Your task to perform on an android device: uninstall "Facebook Messenger" Image 0: 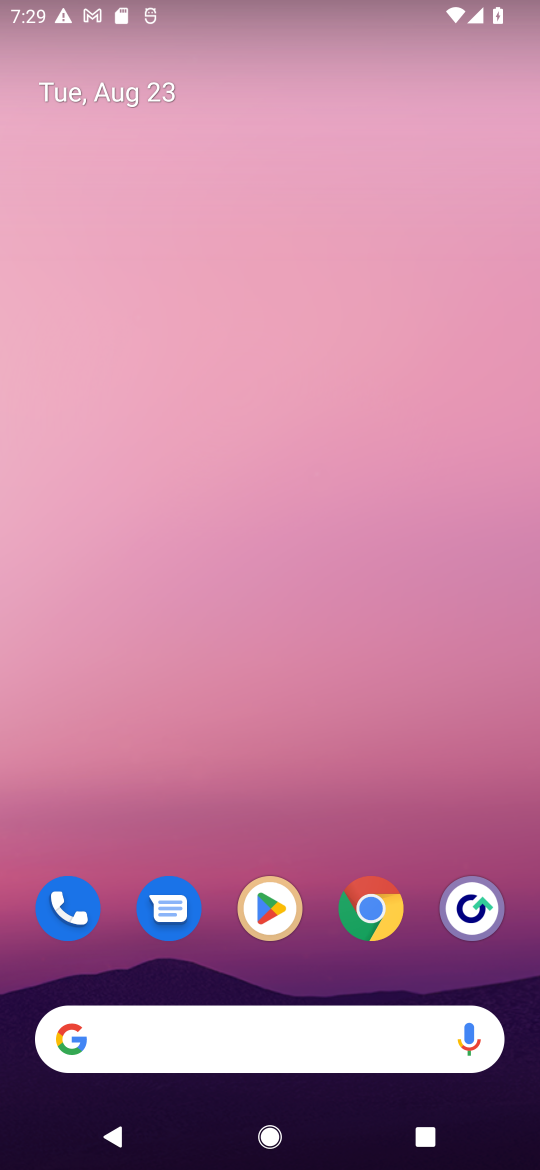
Step 0: drag from (329, 1025) to (452, 198)
Your task to perform on an android device: uninstall "Facebook Messenger" Image 1: 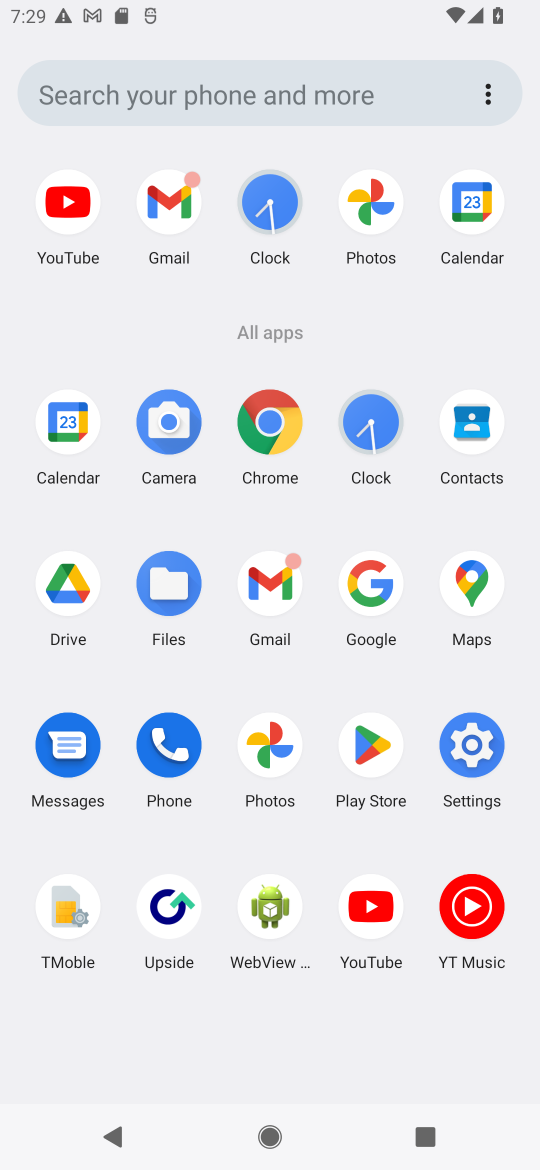
Step 1: click (377, 754)
Your task to perform on an android device: uninstall "Facebook Messenger" Image 2: 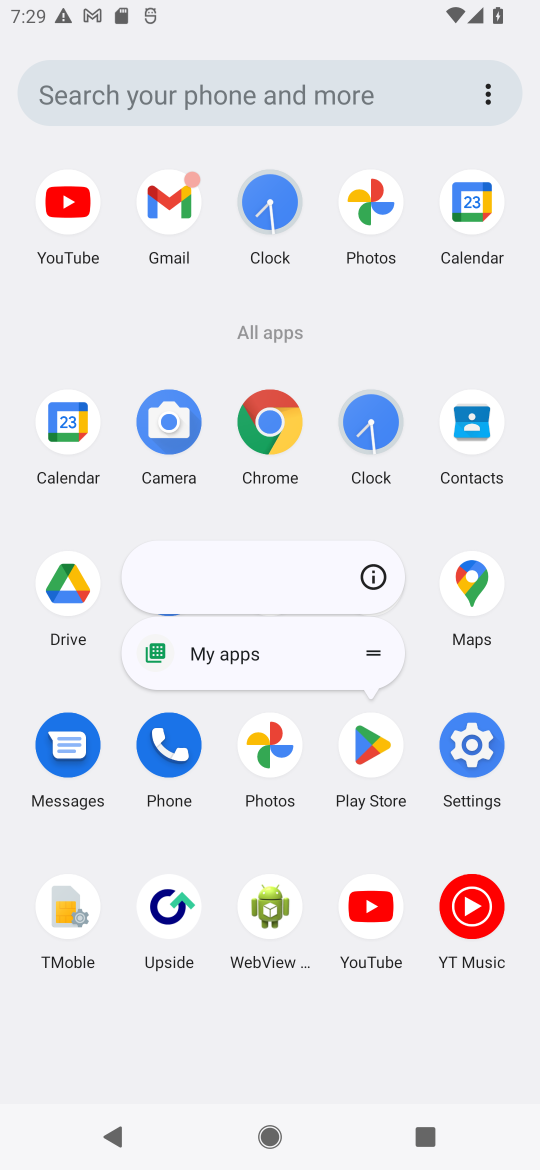
Step 2: click (361, 747)
Your task to perform on an android device: uninstall "Facebook Messenger" Image 3: 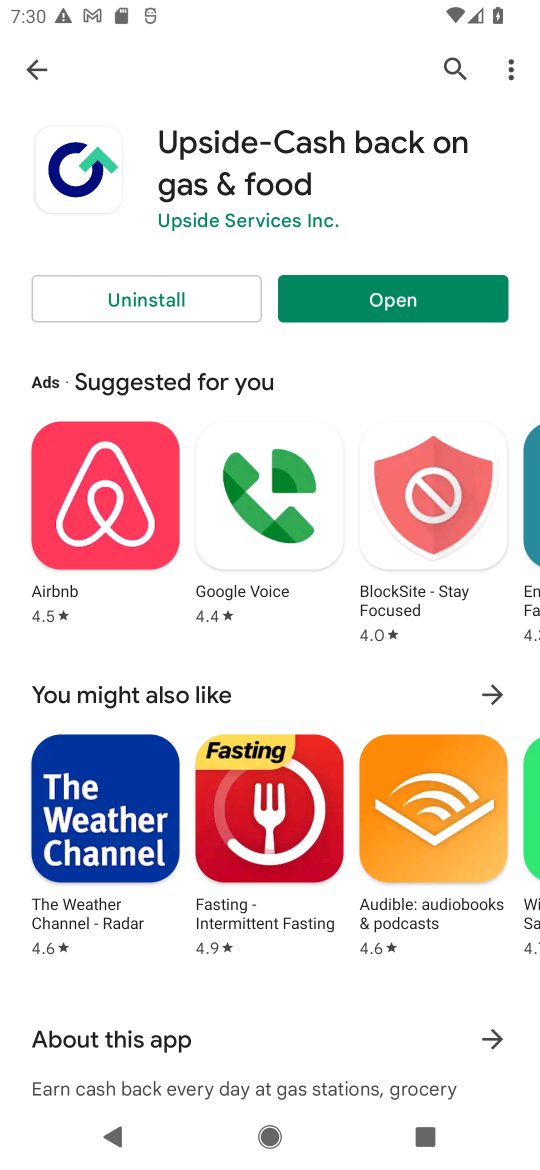
Step 3: click (450, 67)
Your task to perform on an android device: uninstall "Facebook Messenger" Image 4: 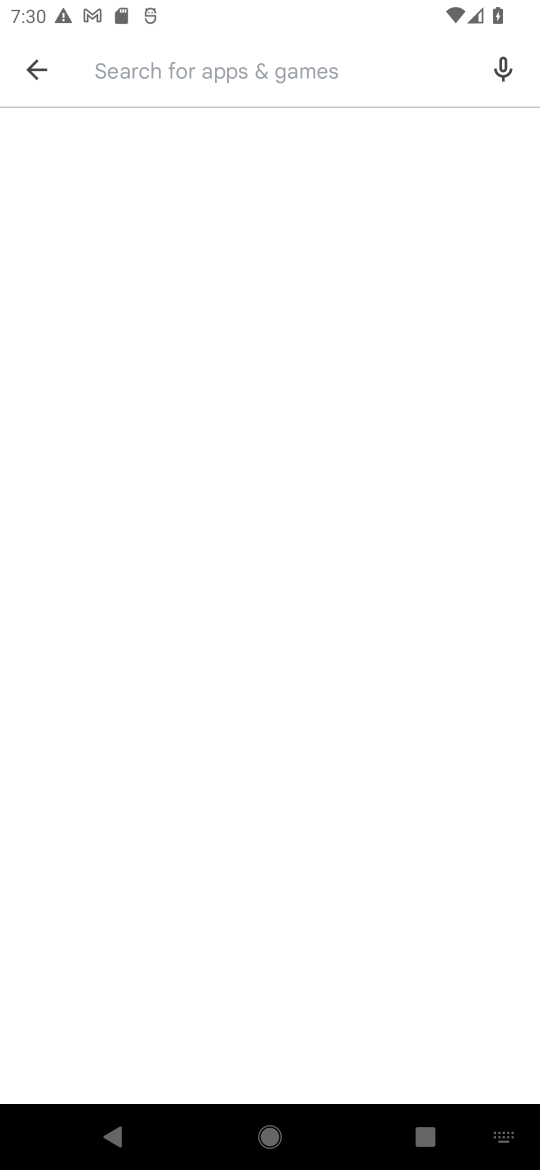
Step 4: type "Facebook Messenger"
Your task to perform on an android device: uninstall "Facebook Messenger" Image 5: 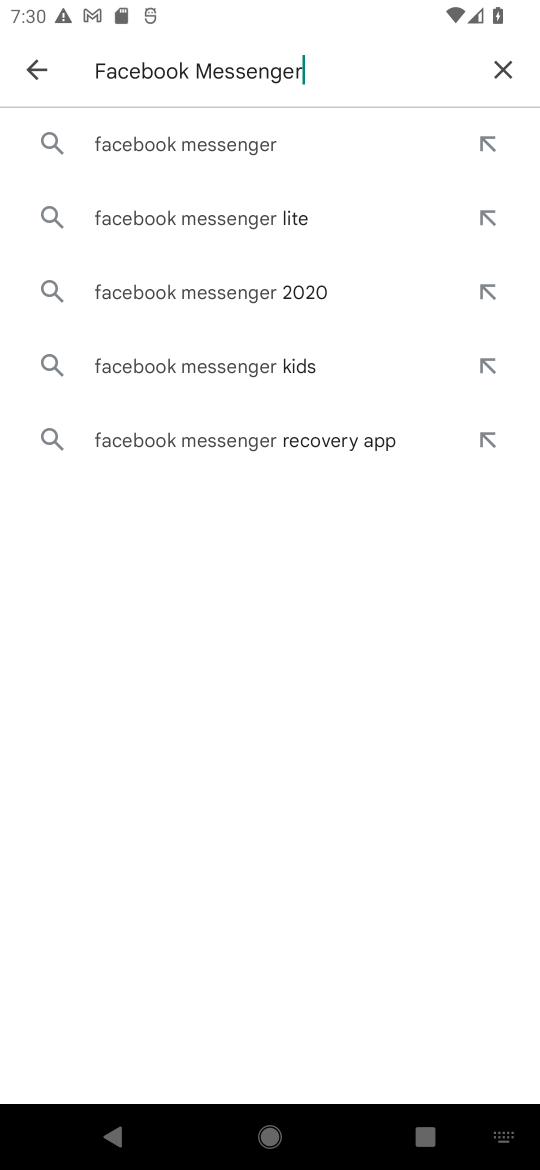
Step 5: click (242, 143)
Your task to perform on an android device: uninstall "Facebook Messenger" Image 6: 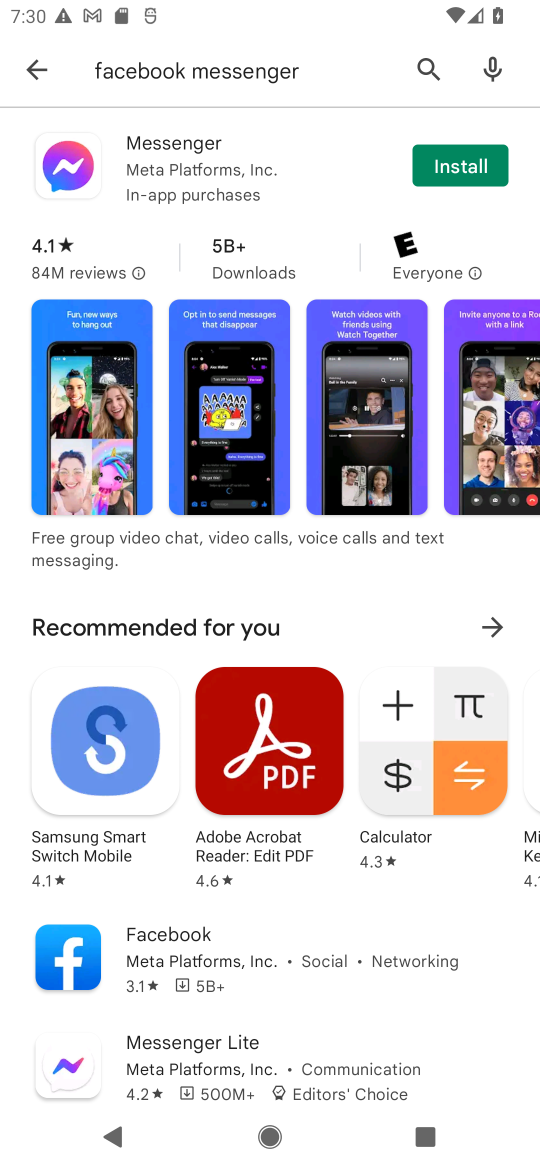
Step 6: click (471, 157)
Your task to perform on an android device: uninstall "Facebook Messenger" Image 7: 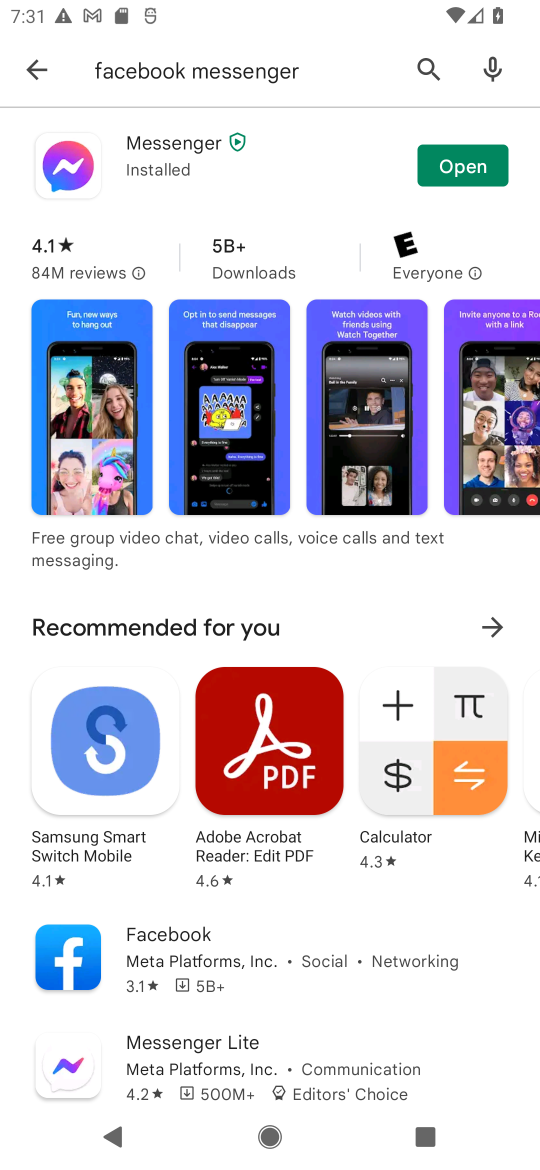
Step 7: click (230, 171)
Your task to perform on an android device: uninstall "Facebook Messenger" Image 8: 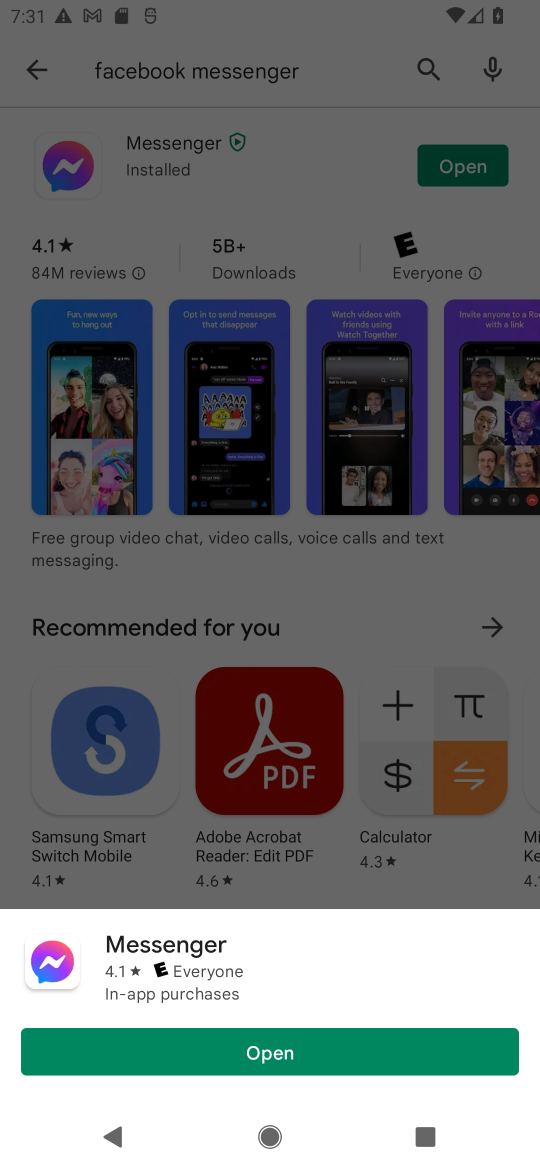
Step 8: click (230, 139)
Your task to perform on an android device: uninstall "Facebook Messenger" Image 9: 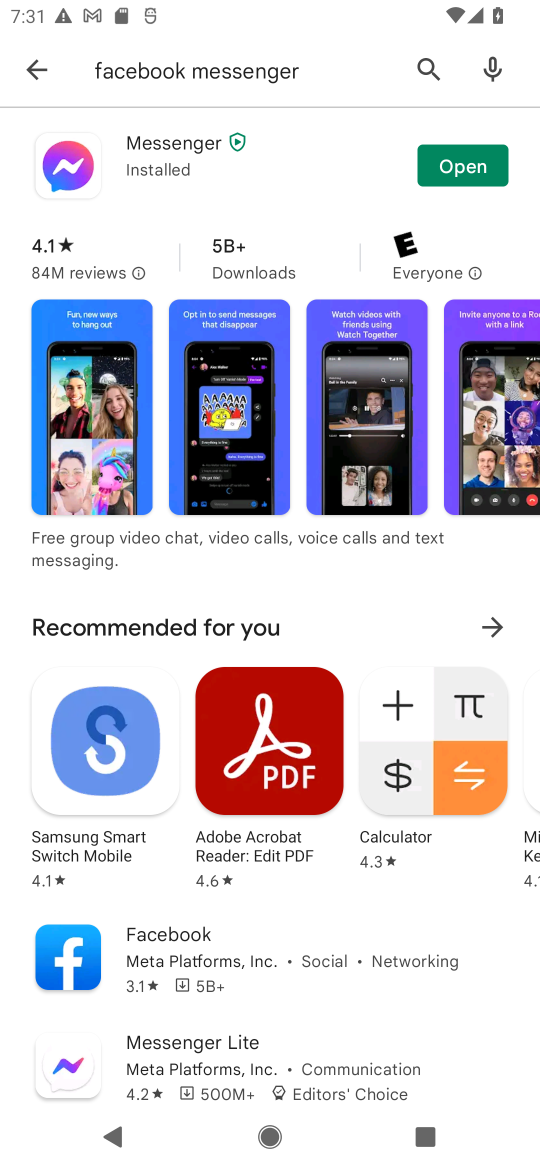
Step 9: click (145, 162)
Your task to perform on an android device: uninstall "Facebook Messenger" Image 10: 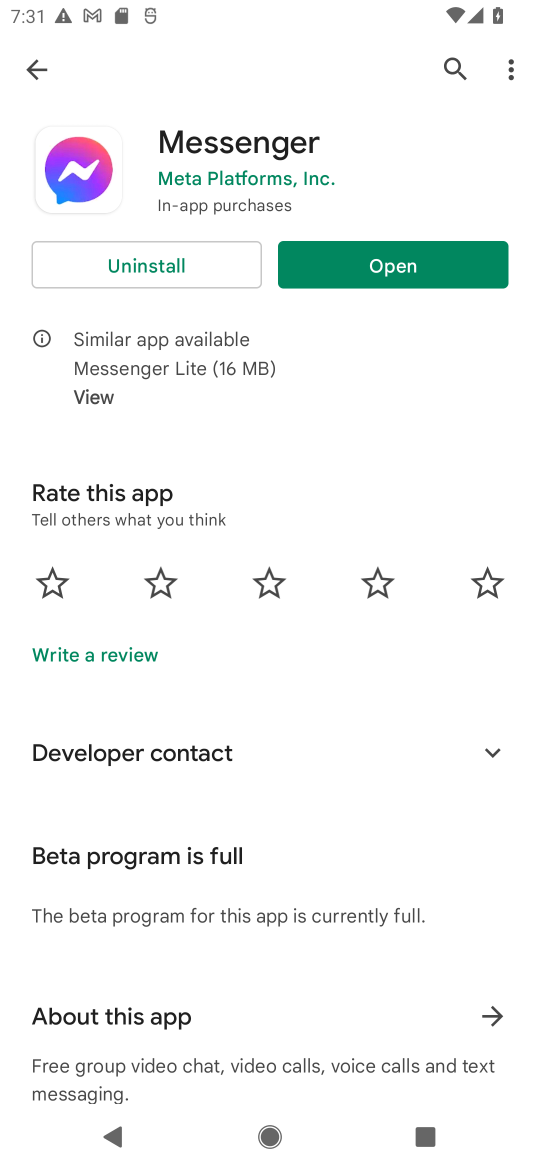
Step 10: click (169, 264)
Your task to perform on an android device: uninstall "Facebook Messenger" Image 11: 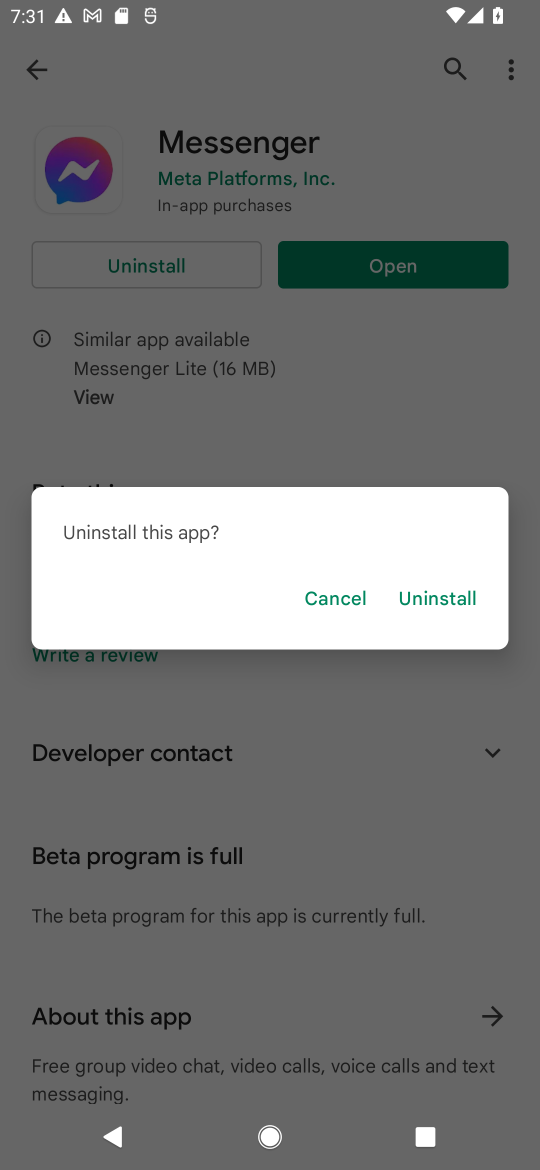
Step 11: click (428, 607)
Your task to perform on an android device: uninstall "Facebook Messenger" Image 12: 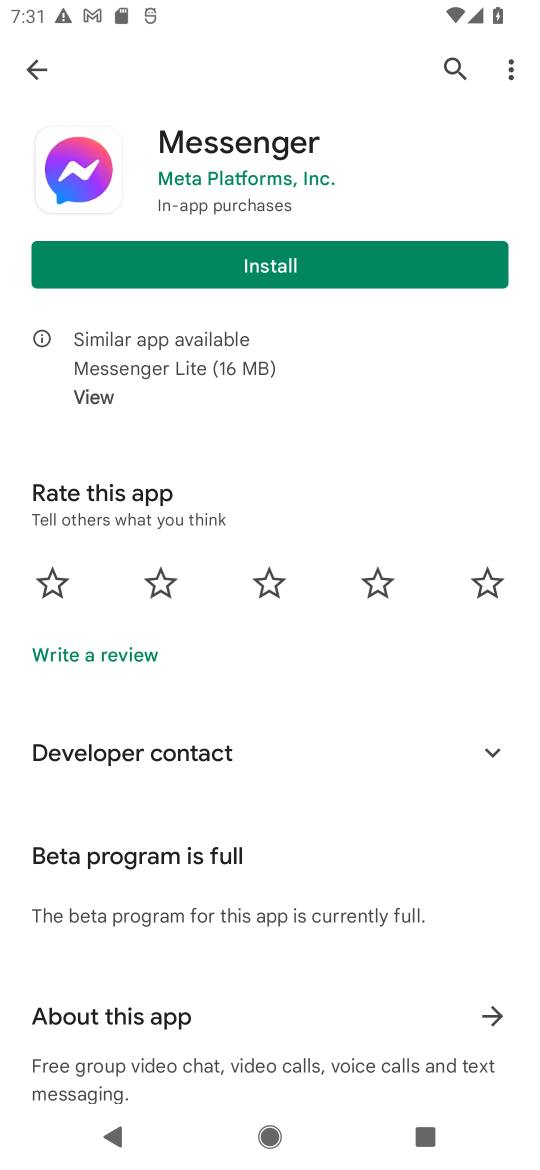
Step 12: task complete